Your task to perform on an android device: Open privacy settings Image 0: 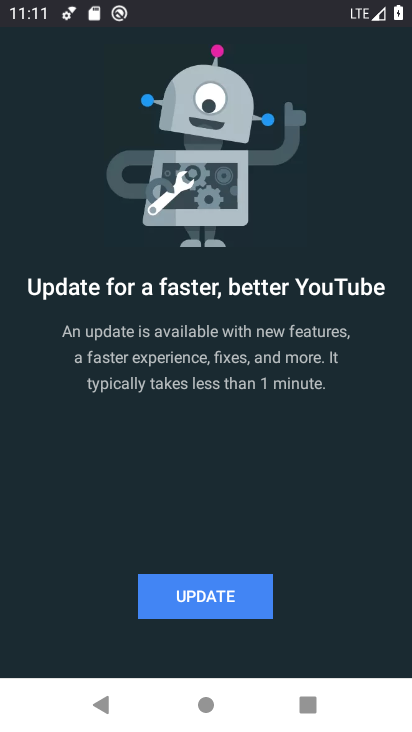
Step 0: press home button
Your task to perform on an android device: Open privacy settings Image 1: 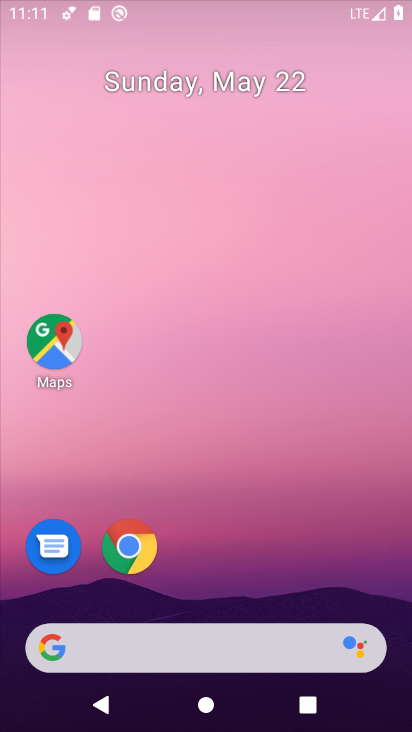
Step 1: drag from (221, 687) to (283, 336)
Your task to perform on an android device: Open privacy settings Image 2: 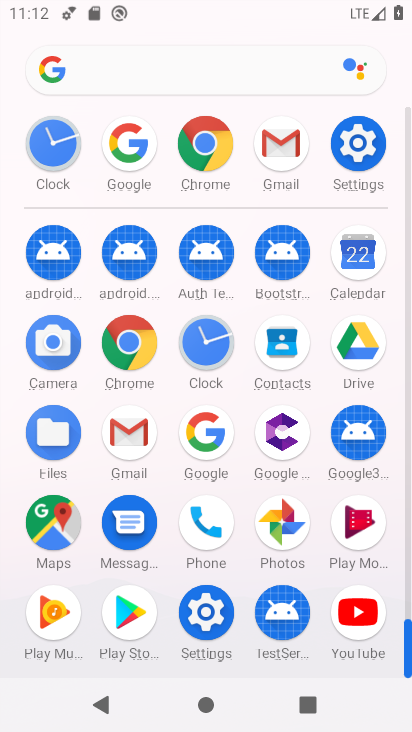
Step 2: click (353, 161)
Your task to perform on an android device: Open privacy settings Image 3: 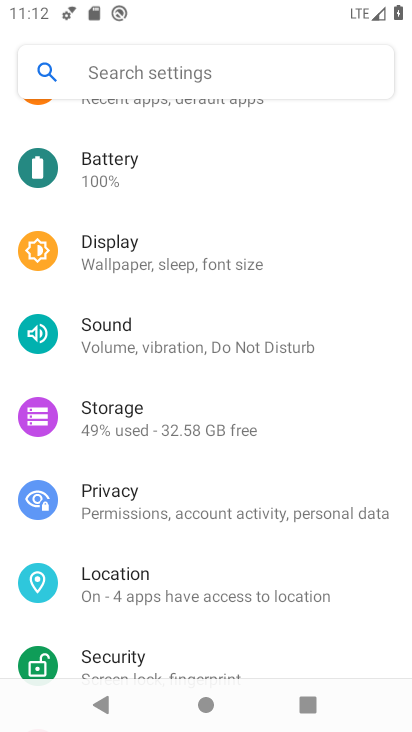
Step 3: click (228, 514)
Your task to perform on an android device: Open privacy settings Image 4: 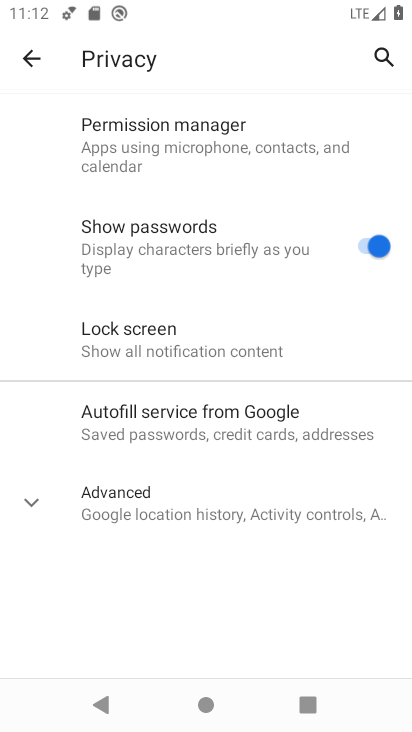
Step 4: click (302, 505)
Your task to perform on an android device: Open privacy settings Image 5: 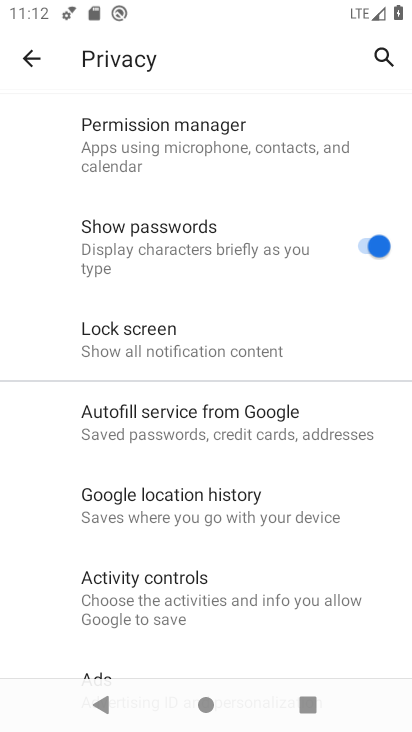
Step 5: task complete